Your task to perform on an android device: What's the weather? Image 0: 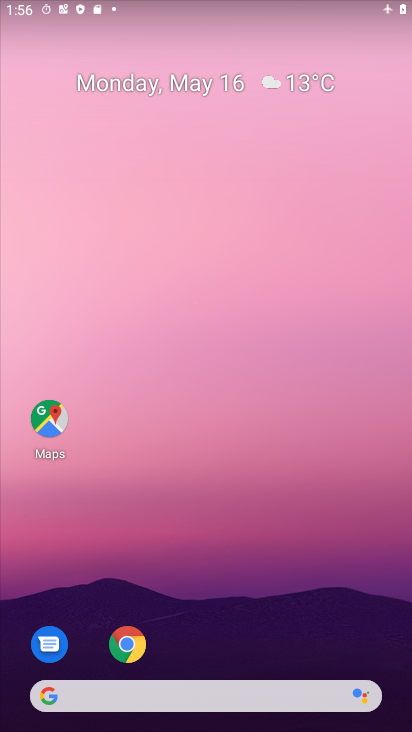
Step 0: drag from (237, 588) to (268, 30)
Your task to perform on an android device: What's the weather? Image 1: 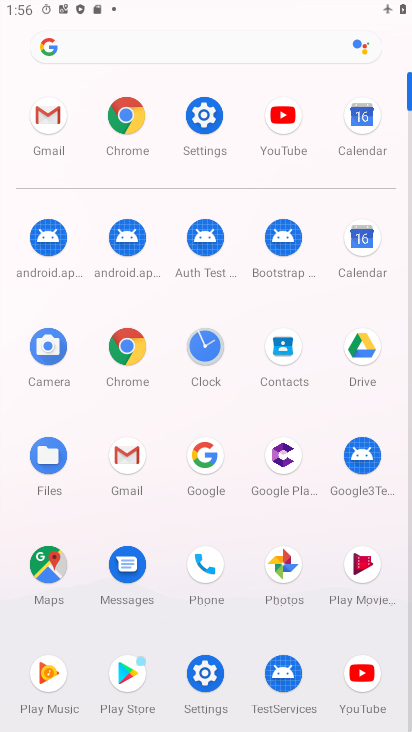
Step 1: click (57, 575)
Your task to perform on an android device: What's the weather? Image 2: 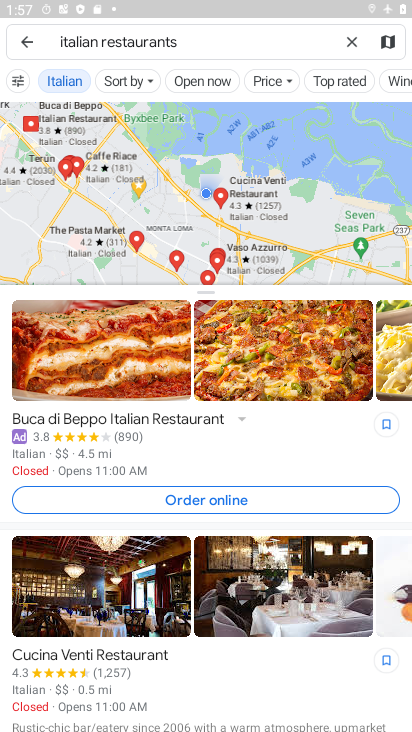
Step 2: press home button
Your task to perform on an android device: What's the weather? Image 3: 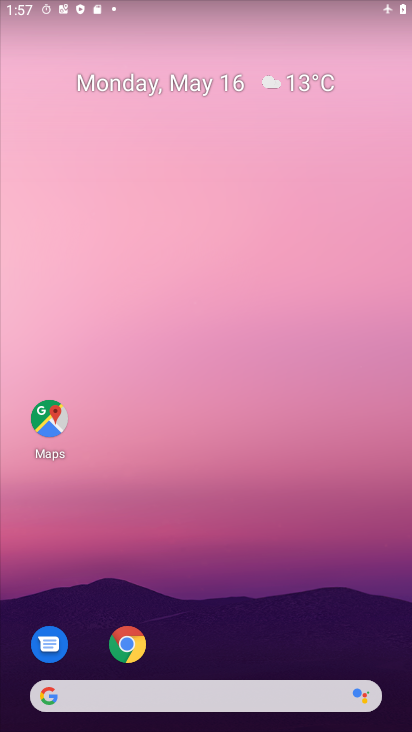
Step 3: drag from (210, 668) to (218, 116)
Your task to perform on an android device: What's the weather? Image 4: 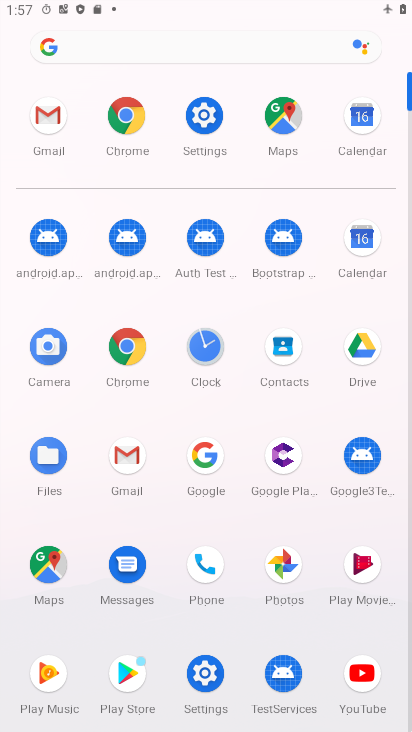
Step 4: click (202, 485)
Your task to perform on an android device: What's the weather? Image 5: 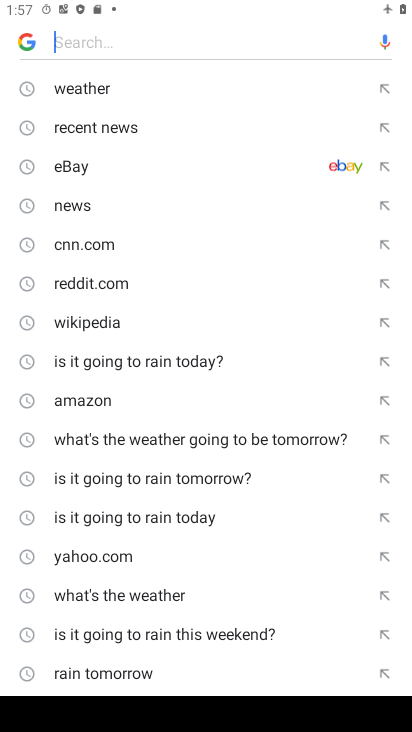
Step 5: click (101, 87)
Your task to perform on an android device: What's the weather? Image 6: 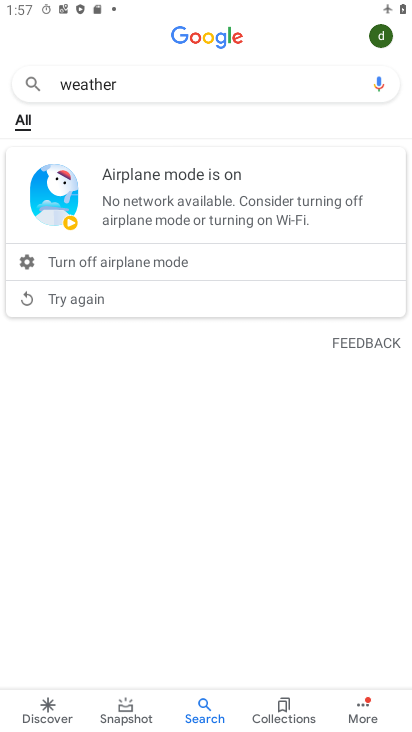
Step 6: task complete